Your task to perform on an android device: View the shopping cart on target.com. Search for "bose soundlink mini" on target.com, select the first entry, and add it to the cart. Image 0: 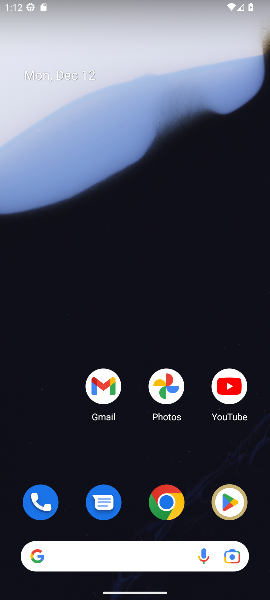
Step 0: click (162, 510)
Your task to perform on an android device: View the shopping cart on target.com. Search for "bose soundlink mini" on target.com, select the first entry, and add it to the cart. Image 1: 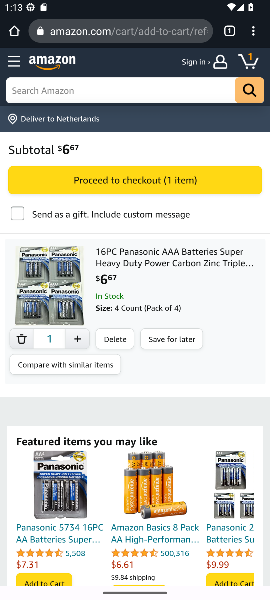
Step 1: task complete